Your task to perform on an android device: Go to Maps Image 0: 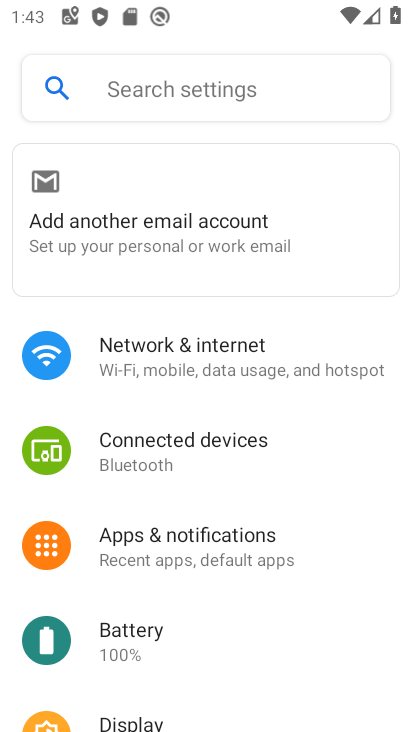
Step 0: press home button
Your task to perform on an android device: Go to Maps Image 1: 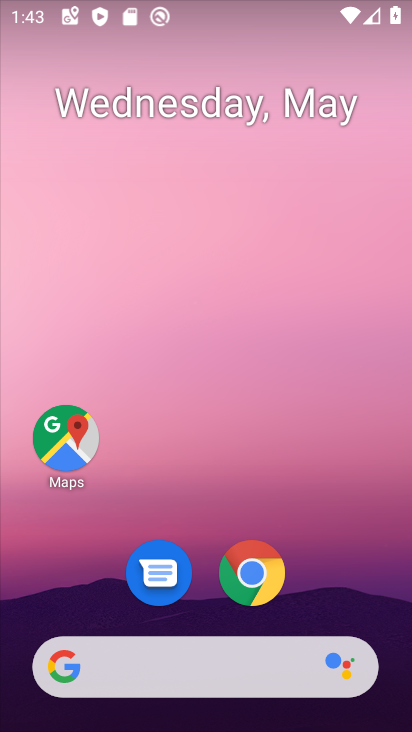
Step 1: drag from (322, 600) to (337, 32)
Your task to perform on an android device: Go to Maps Image 2: 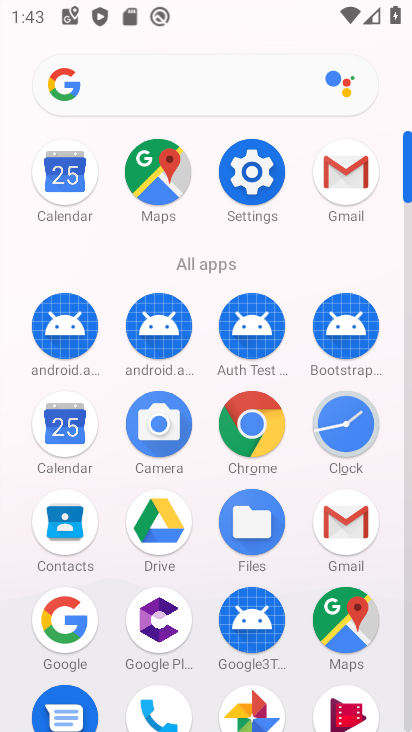
Step 2: click (339, 620)
Your task to perform on an android device: Go to Maps Image 3: 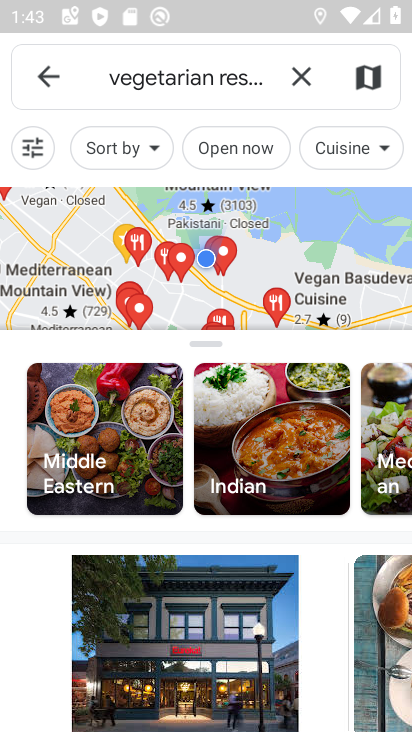
Step 3: click (38, 70)
Your task to perform on an android device: Go to Maps Image 4: 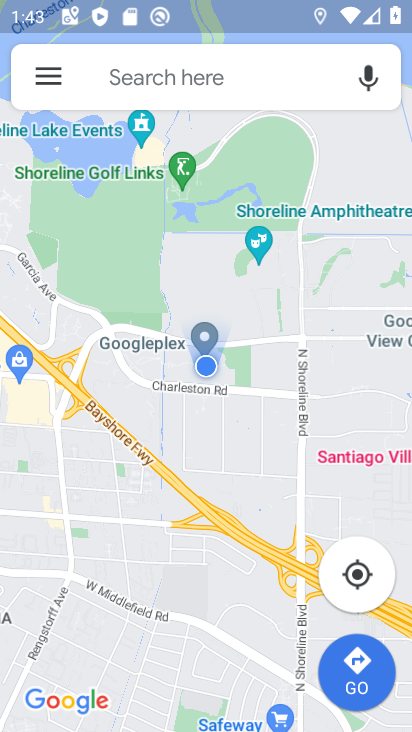
Step 4: task complete